Your task to perform on an android device: manage bookmarks in the chrome app Image 0: 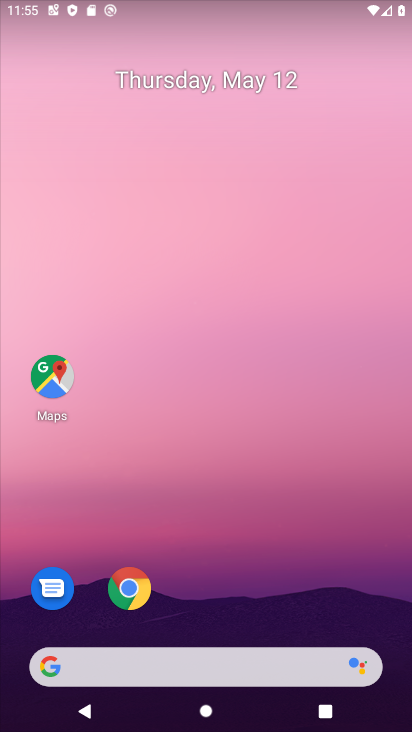
Step 0: drag from (215, 579) to (279, 133)
Your task to perform on an android device: manage bookmarks in the chrome app Image 1: 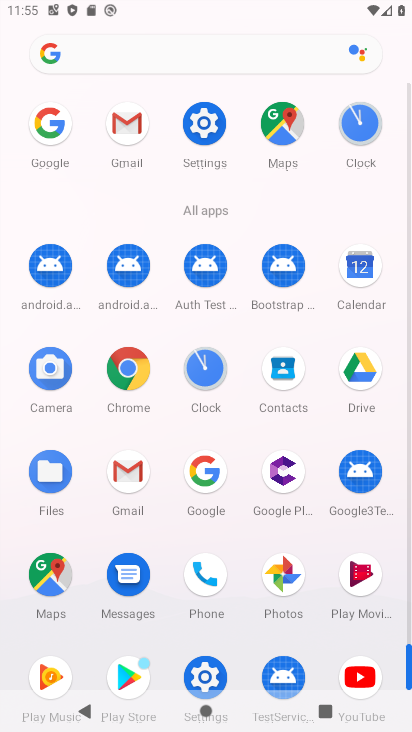
Step 1: click (136, 394)
Your task to perform on an android device: manage bookmarks in the chrome app Image 2: 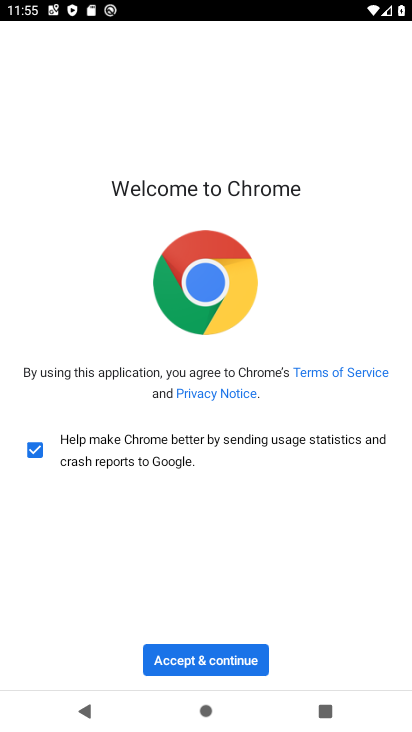
Step 2: click (250, 666)
Your task to perform on an android device: manage bookmarks in the chrome app Image 3: 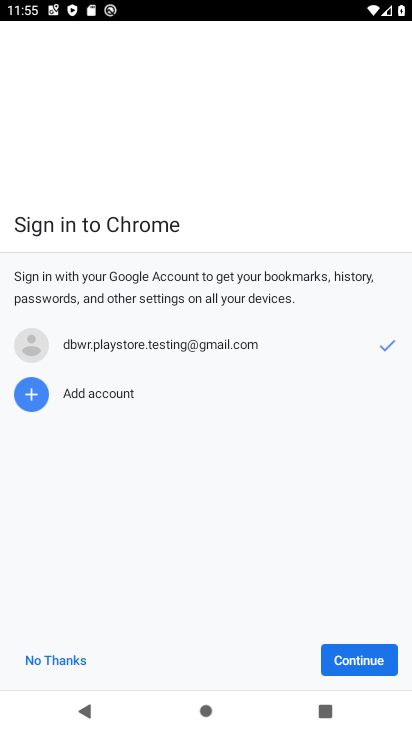
Step 3: click (352, 665)
Your task to perform on an android device: manage bookmarks in the chrome app Image 4: 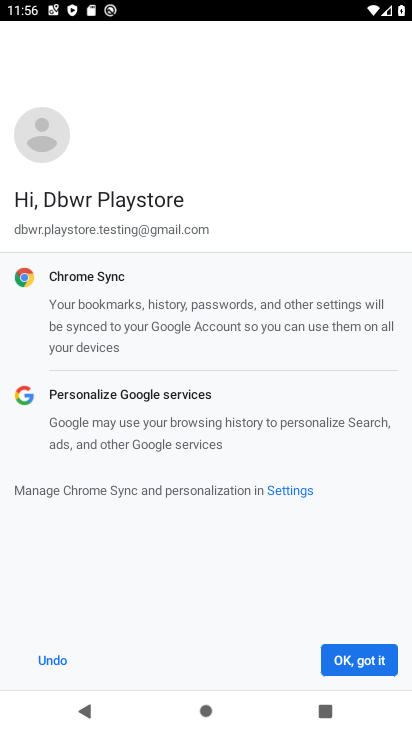
Step 4: click (366, 663)
Your task to perform on an android device: manage bookmarks in the chrome app Image 5: 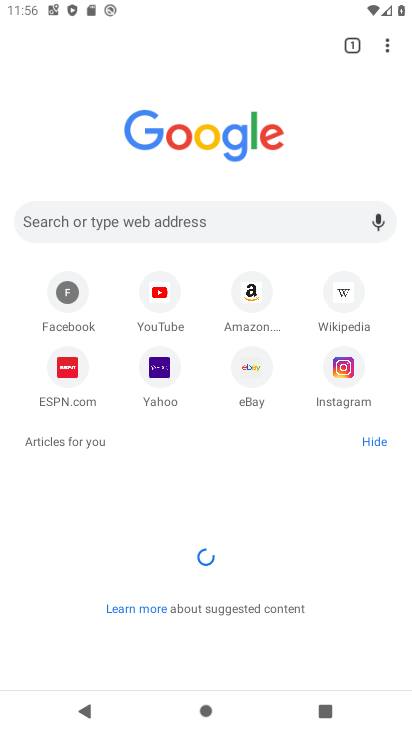
Step 5: click (390, 51)
Your task to perform on an android device: manage bookmarks in the chrome app Image 6: 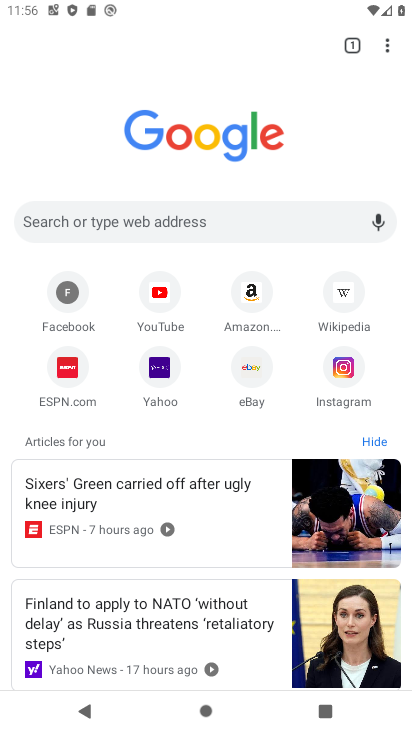
Step 6: click (386, 54)
Your task to perform on an android device: manage bookmarks in the chrome app Image 7: 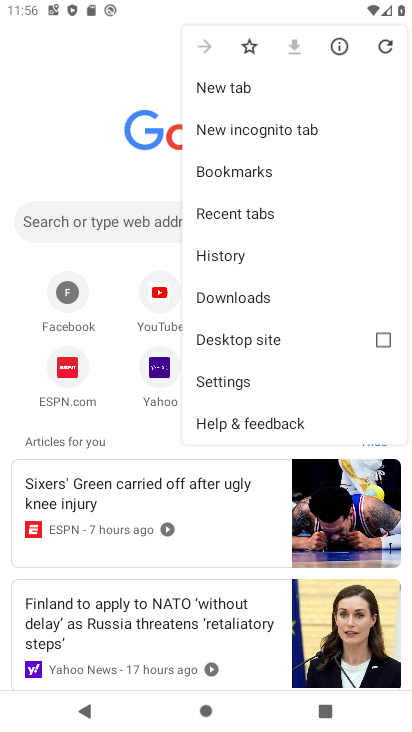
Step 7: click (266, 170)
Your task to perform on an android device: manage bookmarks in the chrome app Image 8: 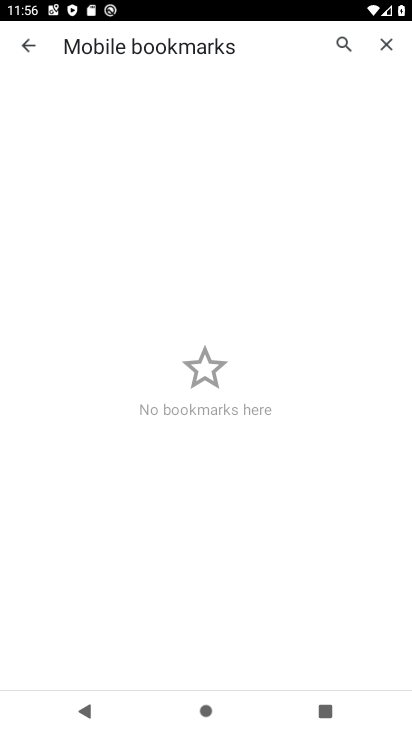
Step 8: task complete